Your task to perform on an android device: turn off improve location accuracy Image 0: 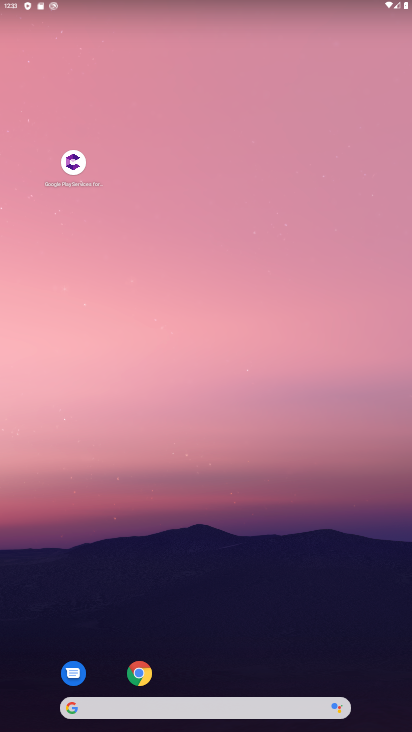
Step 0: drag from (184, 712) to (343, 77)
Your task to perform on an android device: turn off improve location accuracy Image 1: 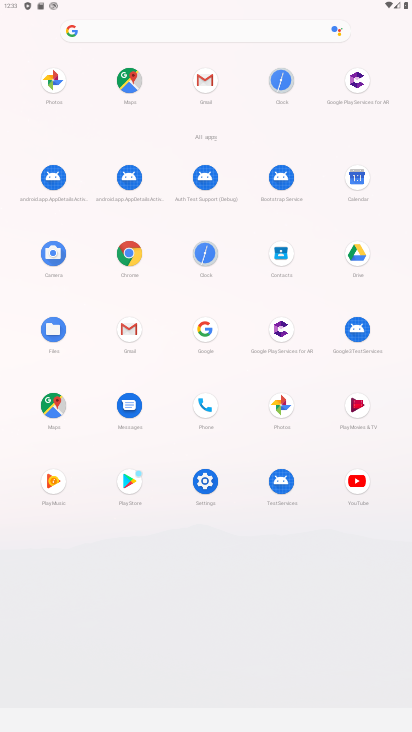
Step 1: click (202, 483)
Your task to perform on an android device: turn off improve location accuracy Image 2: 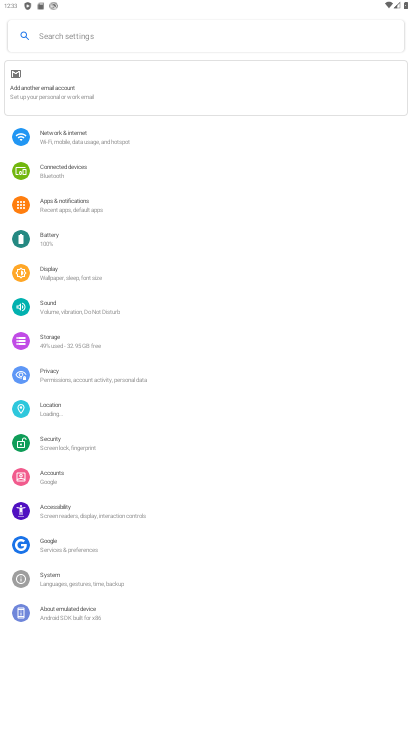
Step 2: click (56, 276)
Your task to perform on an android device: turn off improve location accuracy Image 3: 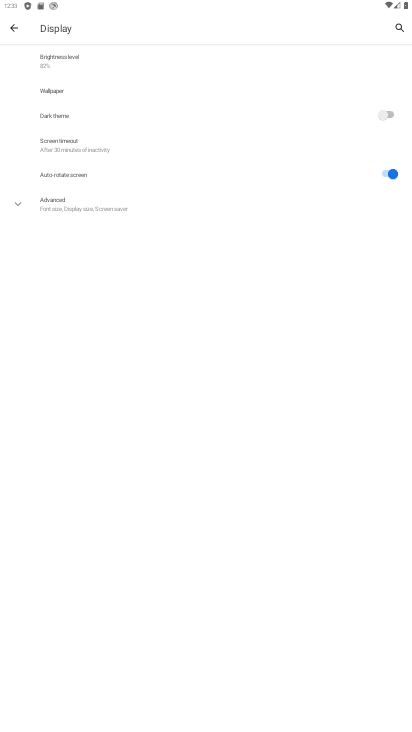
Step 3: click (68, 199)
Your task to perform on an android device: turn off improve location accuracy Image 4: 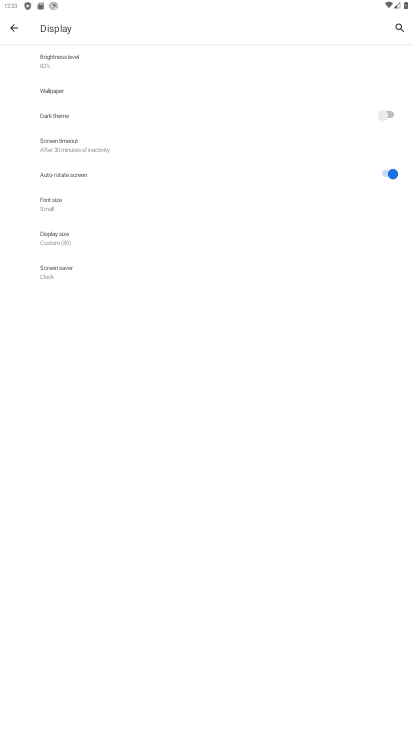
Step 4: click (58, 239)
Your task to perform on an android device: turn off improve location accuracy Image 5: 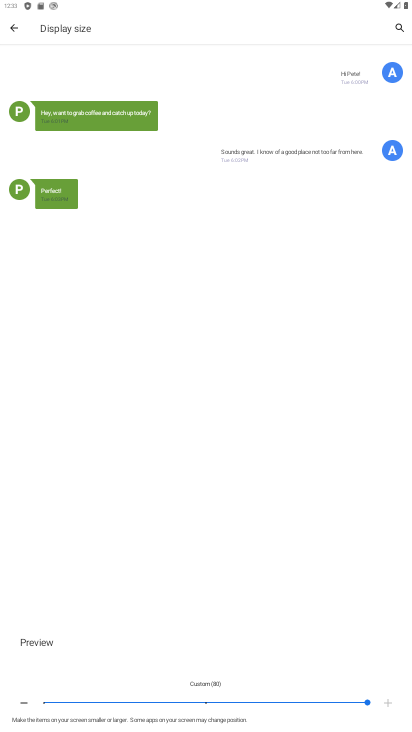
Step 5: click (22, 701)
Your task to perform on an android device: turn off improve location accuracy Image 6: 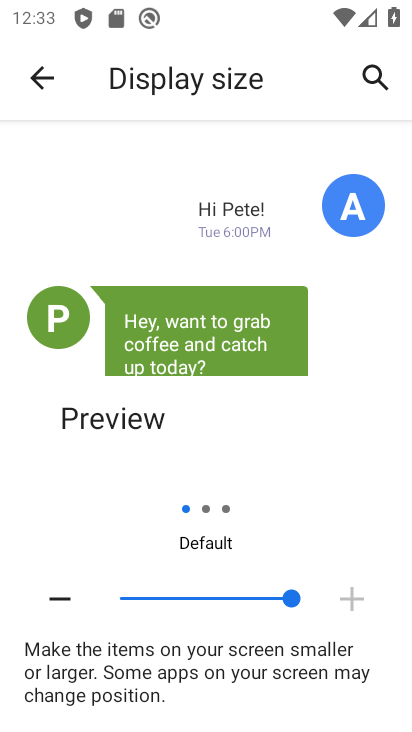
Step 6: click (201, 600)
Your task to perform on an android device: turn off improve location accuracy Image 7: 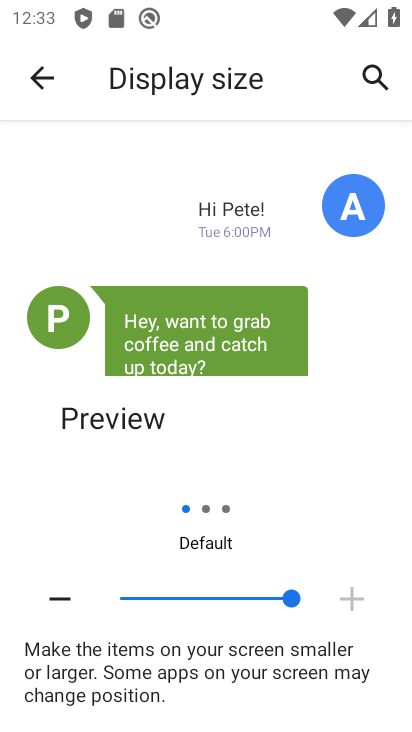
Step 7: click (65, 598)
Your task to perform on an android device: turn off improve location accuracy Image 8: 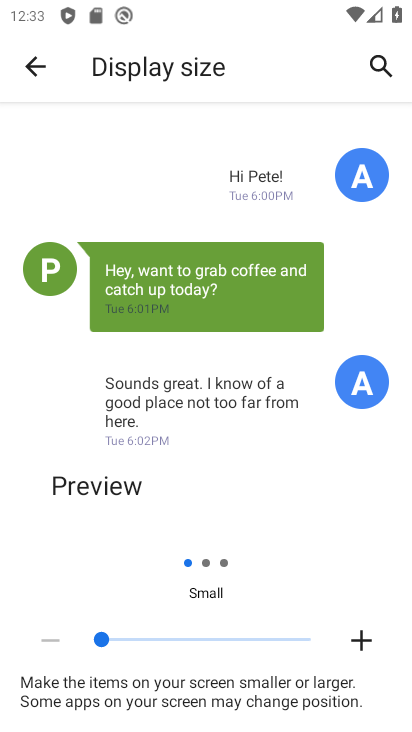
Step 8: task complete